Your task to perform on an android device: open the mobile data screen to see how much data has been used Image 0: 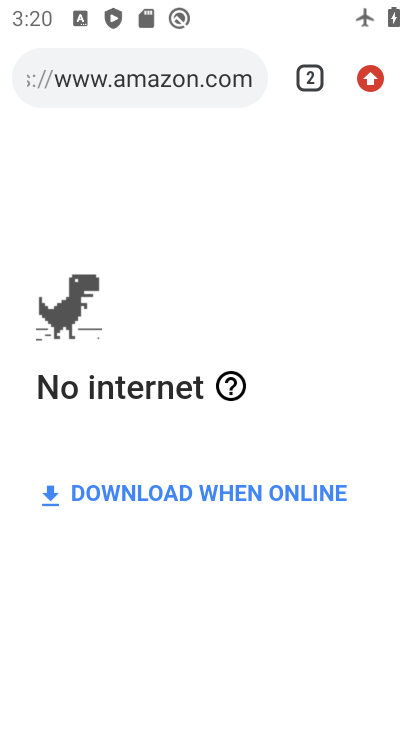
Step 0: task impossible